Your task to perform on an android device: Go to Google maps Image 0: 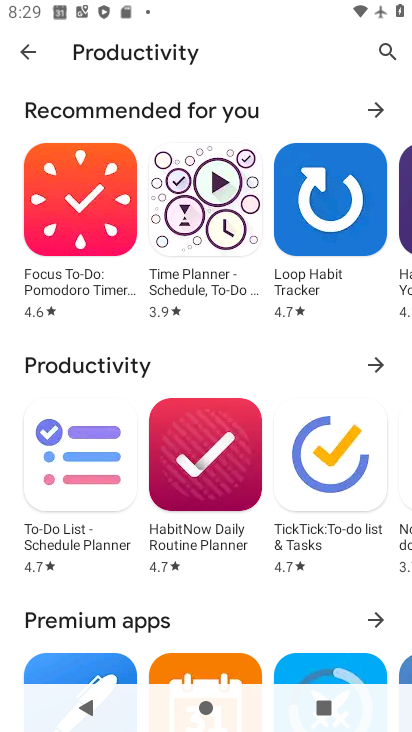
Step 0: press home button
Your task to perform on an android device: Go to Google maps Image 1: 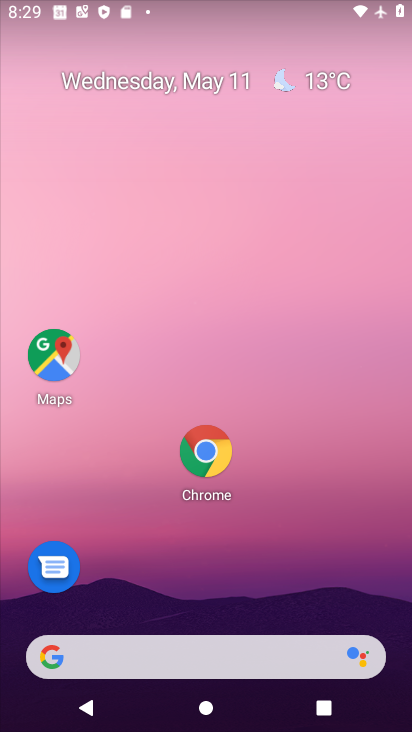
Step 1: click (56, 362)
Your task to perform on an android device: Go to Google maps Image 2: 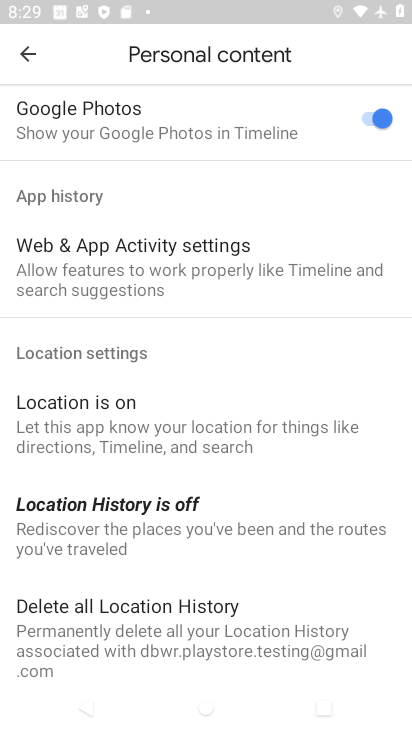
Step 2: click (26, 54)
Your task to perform on an android device: Go to Google maps Image 3: 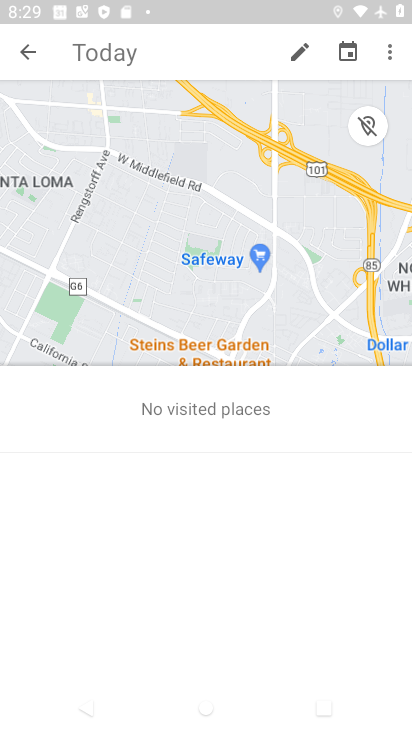
Step 3: task complete